Your task to perform on an android device: change the clock display to show seconds Image 0: 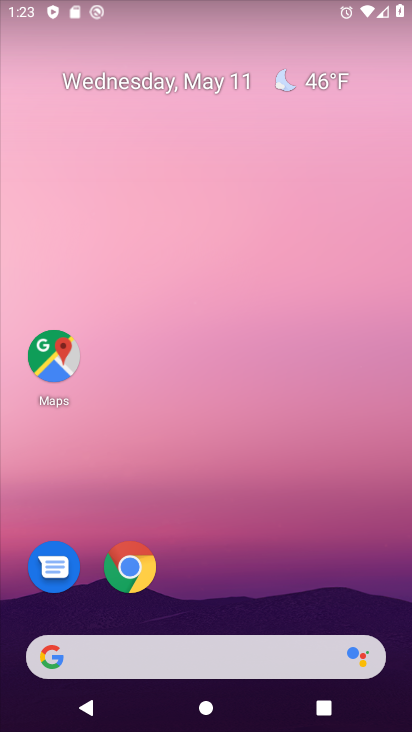
Step 0: drag from (228, 610) to (140, 2)
Your task to perform on an android device: change the clock display to show seconds Image 1: 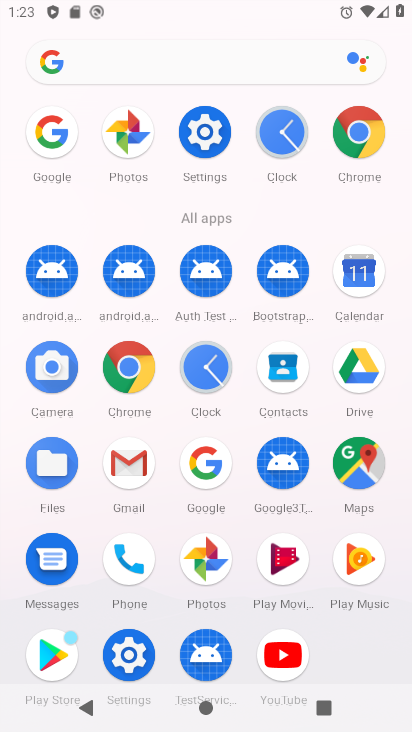
Step 1: click (206, 388)
Your task to perform on an android device: change the clock display to show seconds Image 2: 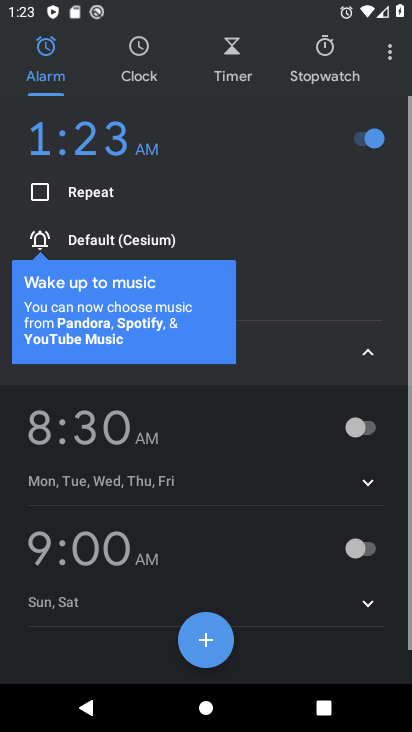
Step 2: click (391, 56)
Your task to perform on an android device: change the clock display to show seconds Image 3: 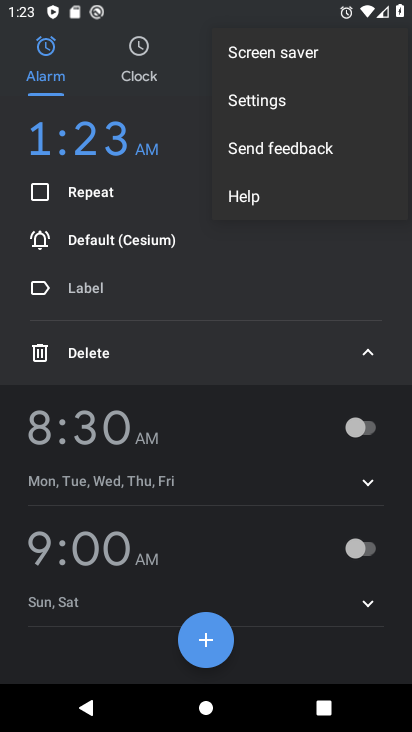
Step 3: click (261, 102)
Your task to perform on an android device: change the clock display to show seconds Image 4: 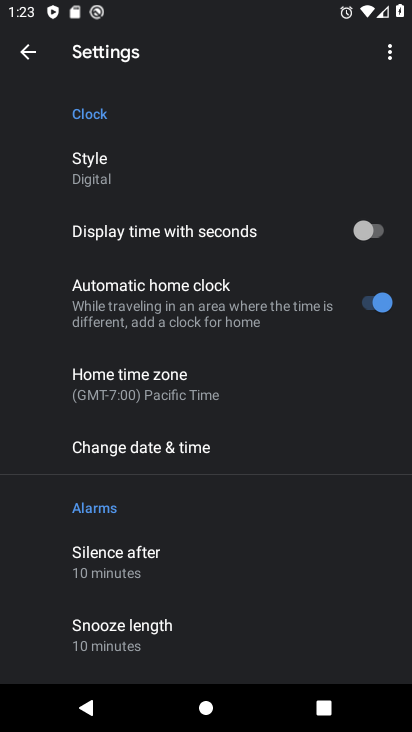
Step 4: click (367, 238)
Your task to perform on an android device: change the clock display to show seconds Image 5: 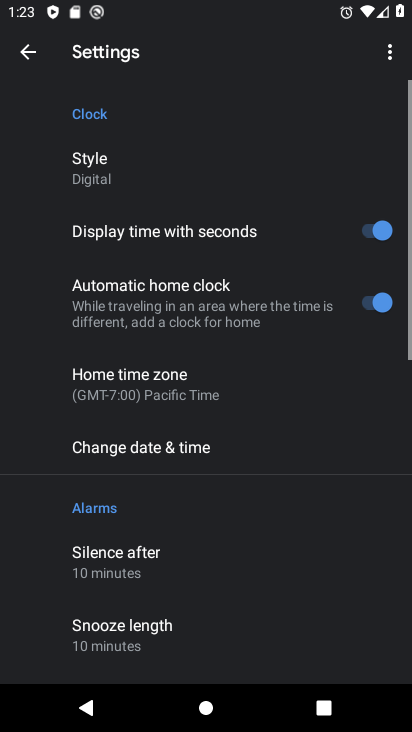
Step 5: task complete